Your task to perform on an android device: What is the recent news? Image 0: 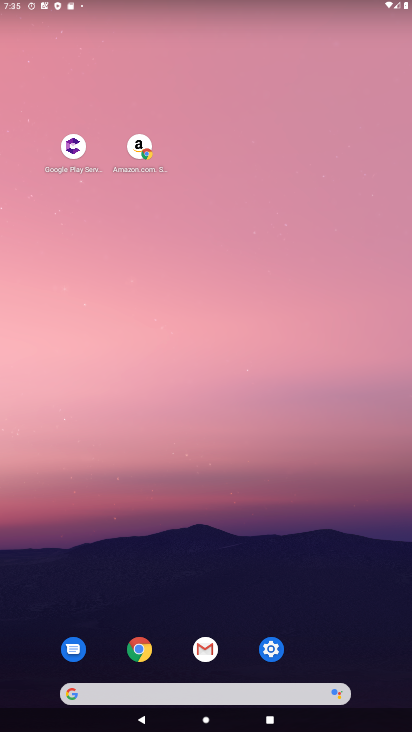
Step 0: click (208, 695)
Your task to perform on an android device: What is the recent news? Image 1: 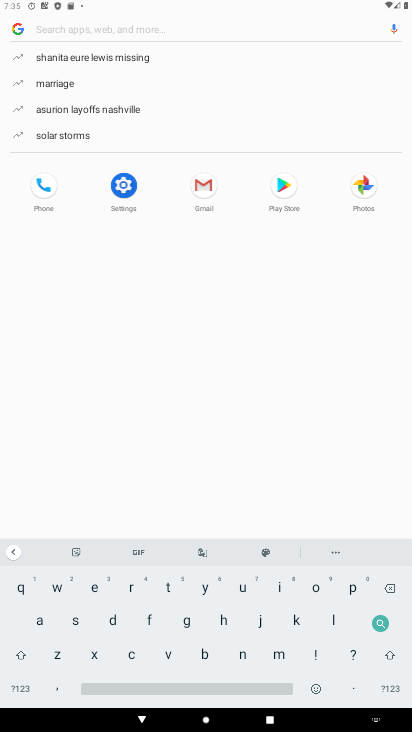
Step 1: click (127, 589)
Your task to perform on an android device: What is the recent news? Image 2: 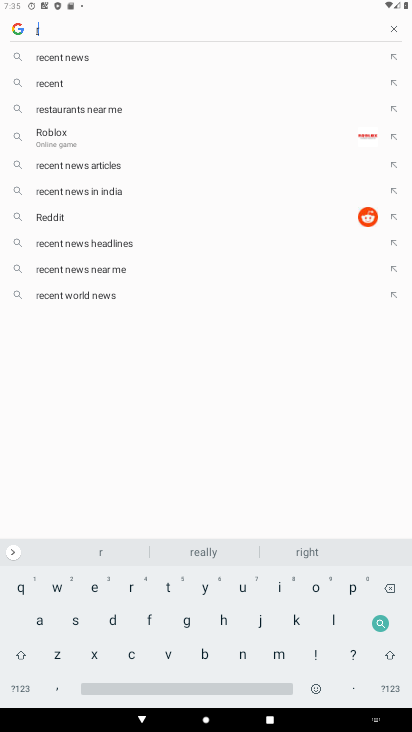
Step 2: click (91, 586)
Your task to perform on an android device: What is the recent news? Image 3: 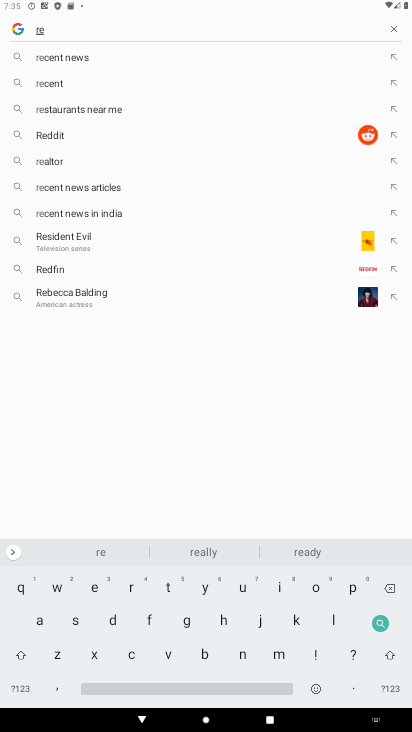
Step 3: click (47, 54)
Your task to perform on an android device: What is the recent news? Image 4: 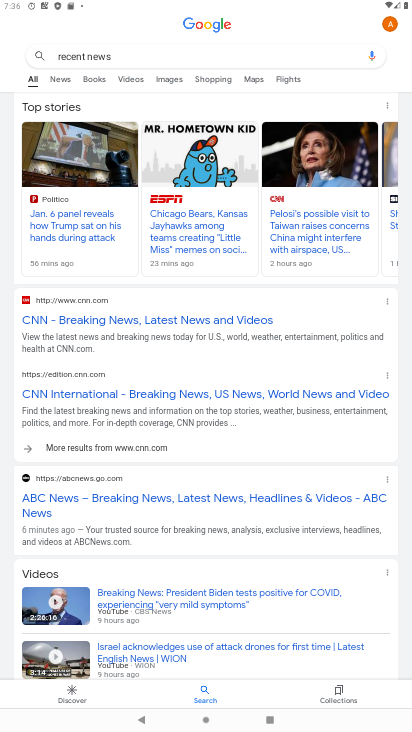
Step 4: task complete